Your task to perform on an android device: add a contact in the contacts app Image 0: 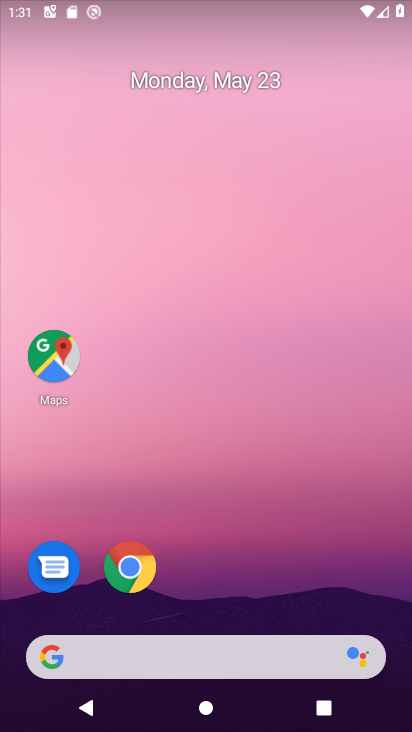
Step 0: drag from (238, 585) to (321, 157)
Your task to perform on an android device: add a contact in the contacts app Image 1: 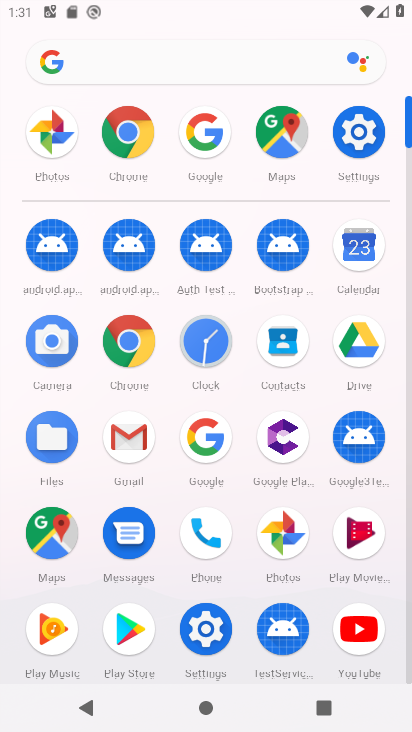
Step 1: click (280, 351)
Your task to perform on an android device: add a contact in the contacts app Image 2: 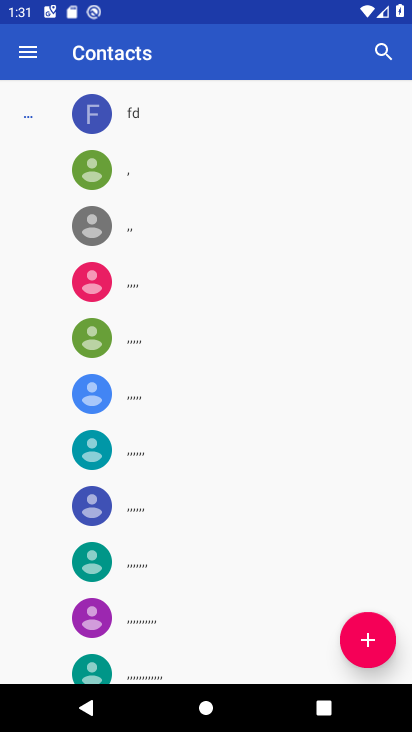
Step 2: click (357, 650)
Your task to perform on an android device: add a contact in the contacts app Image 3: 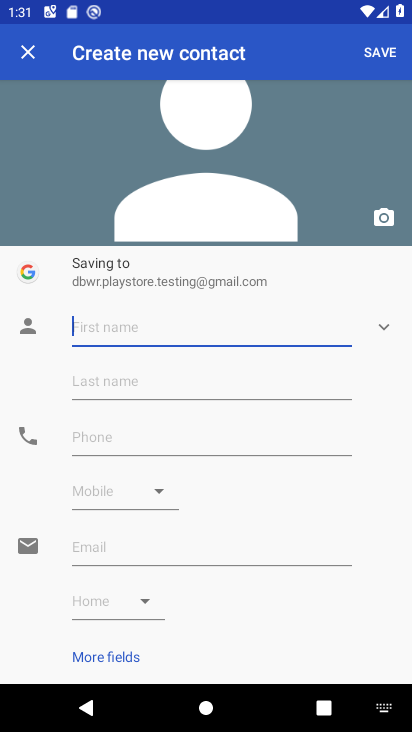
Step 3: type "ghfghd"
Your task to perform on an android device: add a contact in the contacts app Image 4: 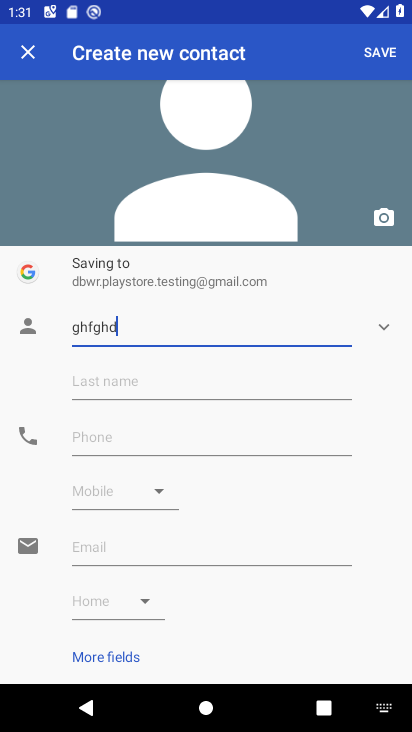
Step 4: type ""
Your task to perform on an android device: add a contact in the contacts app Image 5: 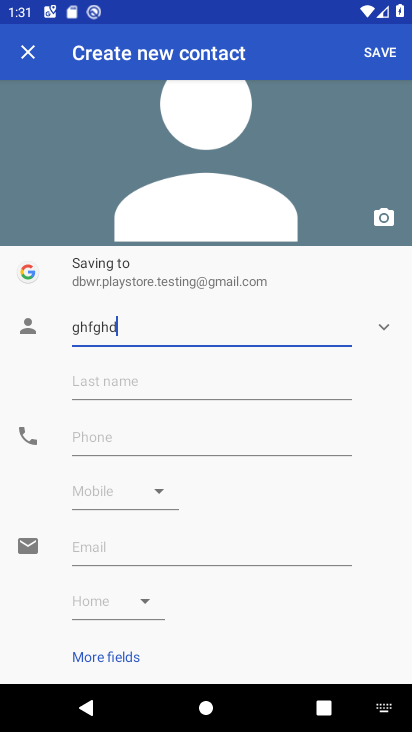
Step 5: click (388, 54)
Your task to perform on an android device: add a contact in the contacts app Image 6: 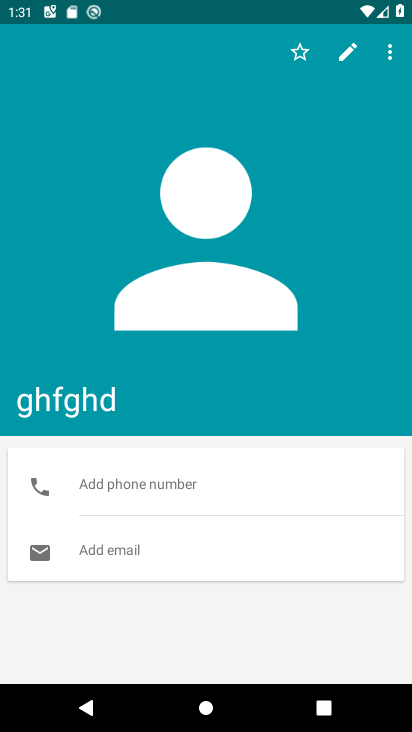
Step 6: task complete